Your task to perform on an android device: Is it going to rain tomorrow? Image 0: 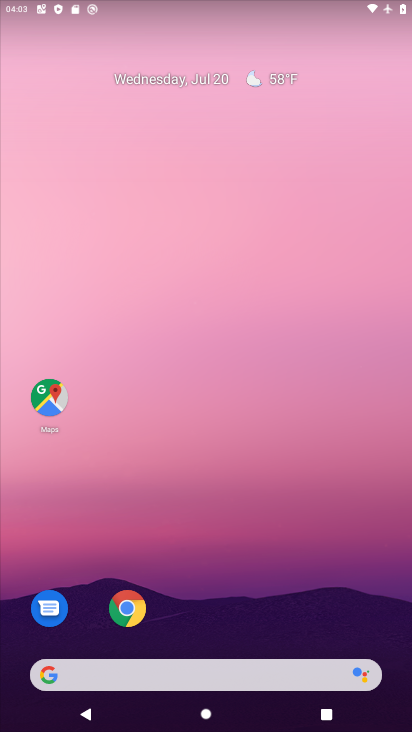
Step 0: click (217, 667)
Your task to perform on an android device: Is it going to rain tomorrow? Image 1: 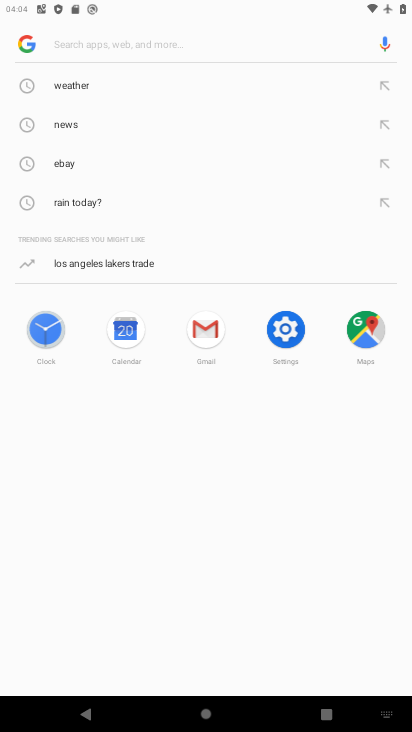
Step 1: click (93, 85)
Your task to perform on an android device: Is it going to rain tomorrow? Image 2: 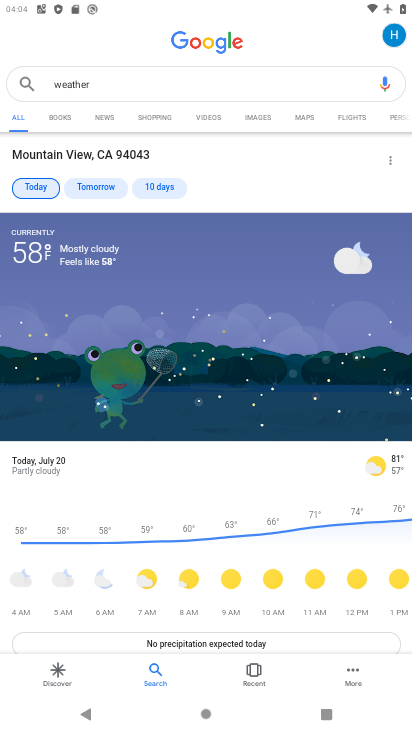
Step 2: task complete